Your task to perform on an android device: toggle improve location accuracy Image 0: 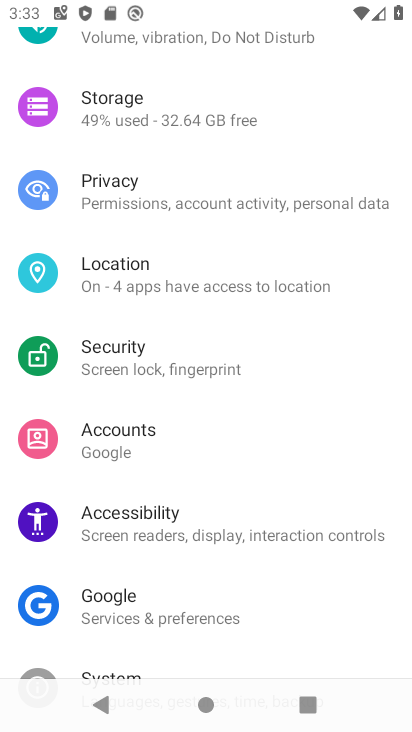
Step 0: click (116, 270)
Your task to perform on an android device: toggle improve location accuracy Image 1: 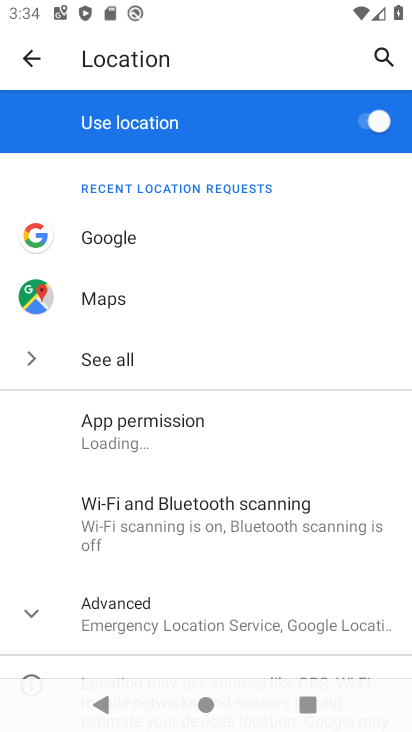
Step 1: drag from (280, 600) to (264, 214)
Your task to perform on an android device: toggle improve location accuracy Image 2: 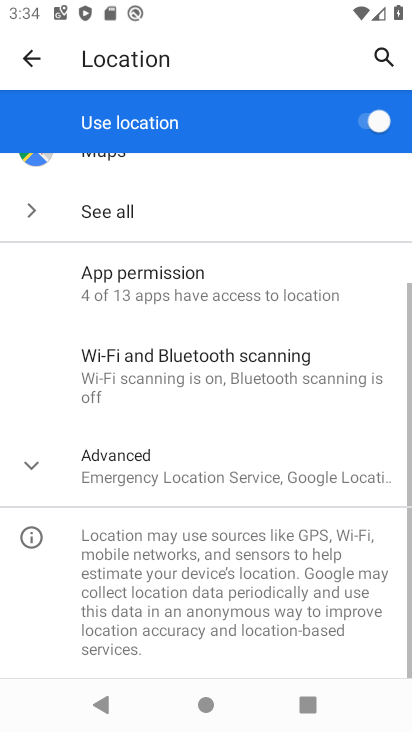
Step 2: click (29, 459)
Your task to perform on an android device: toggle improve location accuracy Image 3: 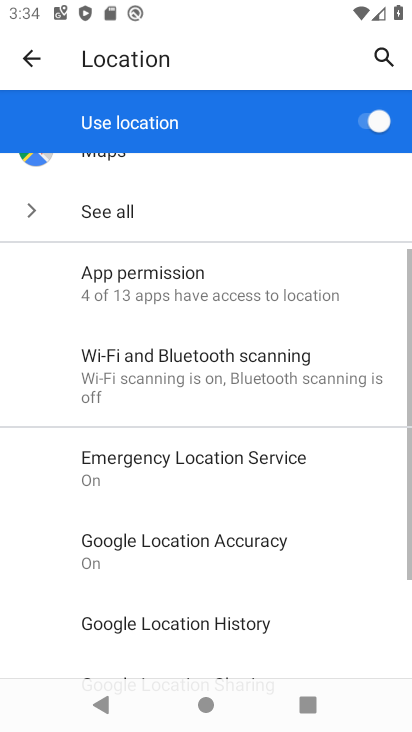
Step 3: drag from (299, 619) to (323, 348)
Your task to perform on an android device: toggle improve location accuracy Image 4: 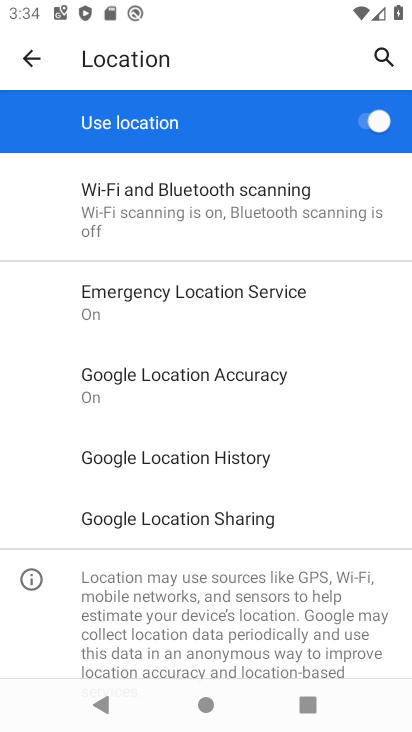
Step 4: click (171, 374)
Your task to perform on an android device: toggle improve location accuracy Image 5: 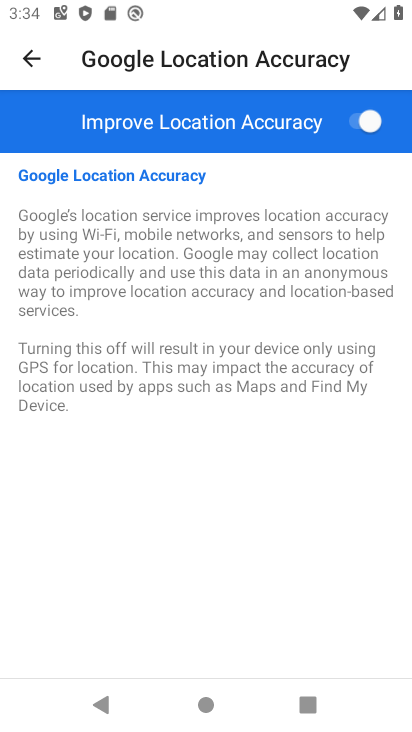
Step 5: click (354, 125)
Your task to perform on an android device: toggle improve location accuracy Image 6: 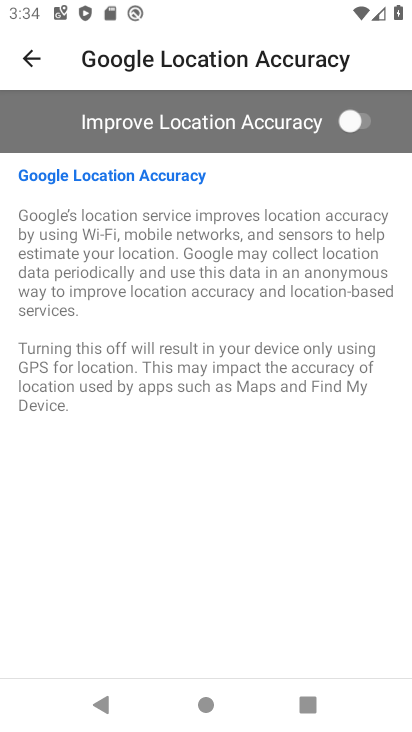
Step 6: task complete